Your task to perform on an android device: open a new tab in the chrome app Image 0: 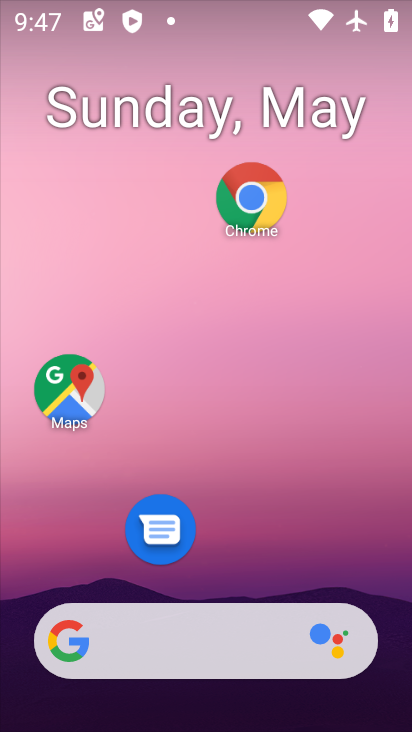
Step 0: click (250, 212)
Your task to perform on an android device: open a new tab in the chrome app Image 1: 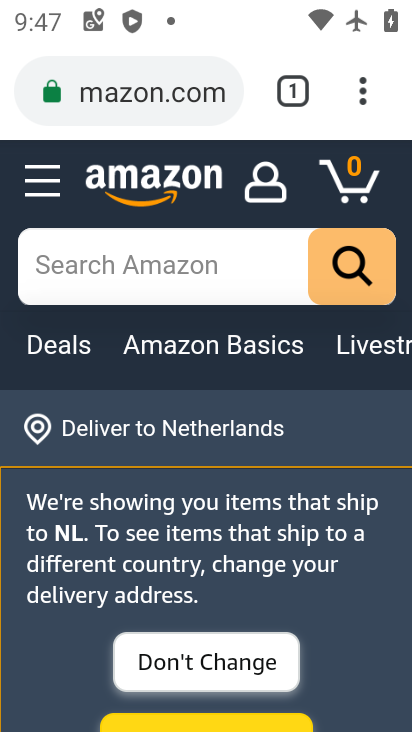
Step 1: click (363, 93)
Your task to perform on an android device: open a new tab in the chrome app Image 2: 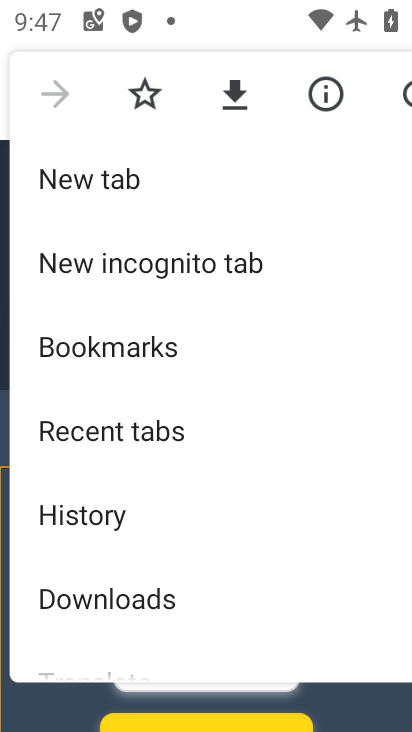
Step 2: click (76, 185)
Your task to perform on an android device: open a new tab in the chrome app Image 3: 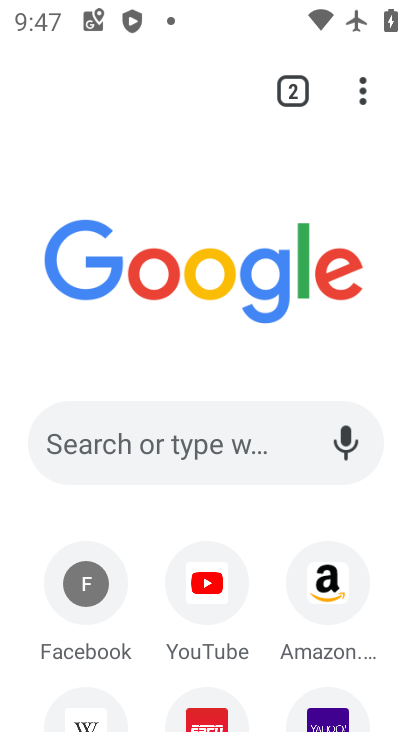
Step 3: task complete